Your task to perform on an android device: Open Yahoo.com Image 0: 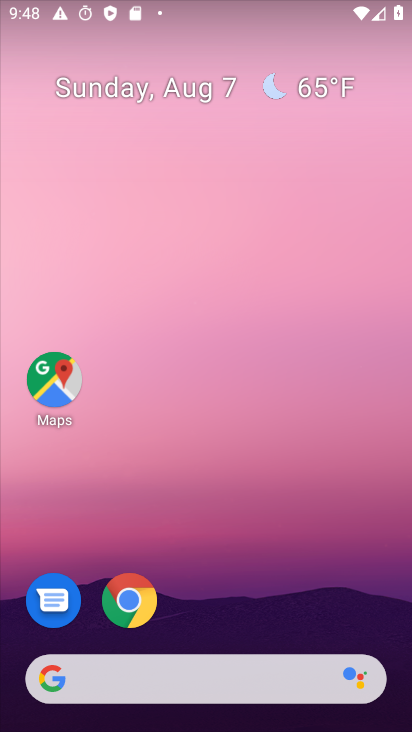
Step 0: drag from (248, 646) to (254, 131)
Your task to perform on an android device: Open Yahoo.com Image 1: 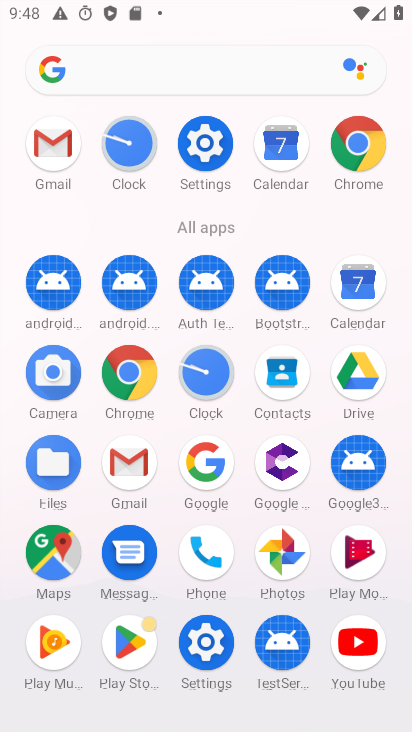
Step 1: click (345, 172)
Your task to perform on an android device: Open Yahoo.com Image 2: 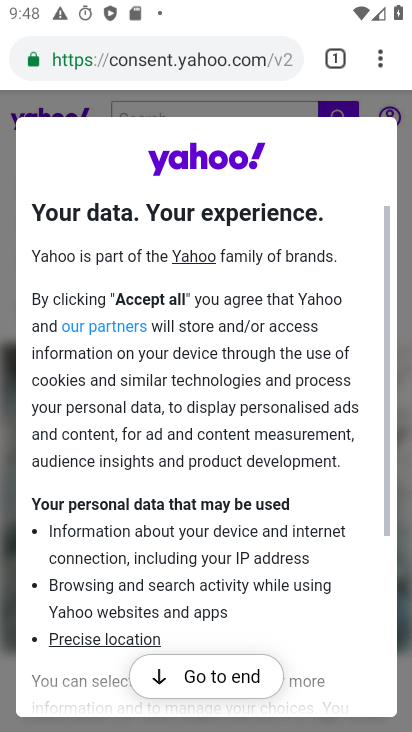
Step 2: task complete